Your task to perform on an android device: Is it going to rain this weekend? Image 0: 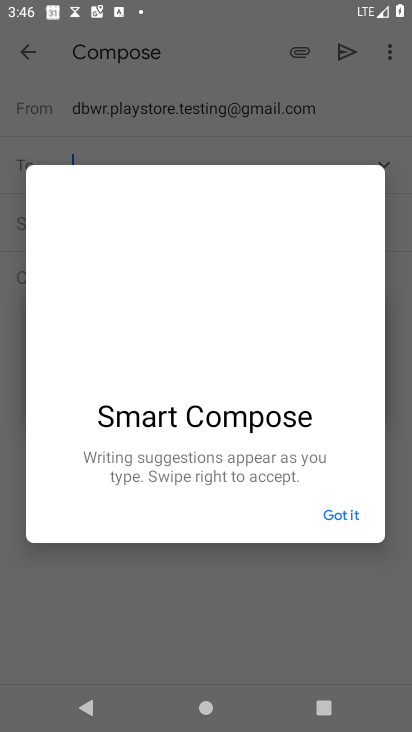
Step 0: press home button
Your task to perform on an android device: Is it going to rain this weekend? Image 1: 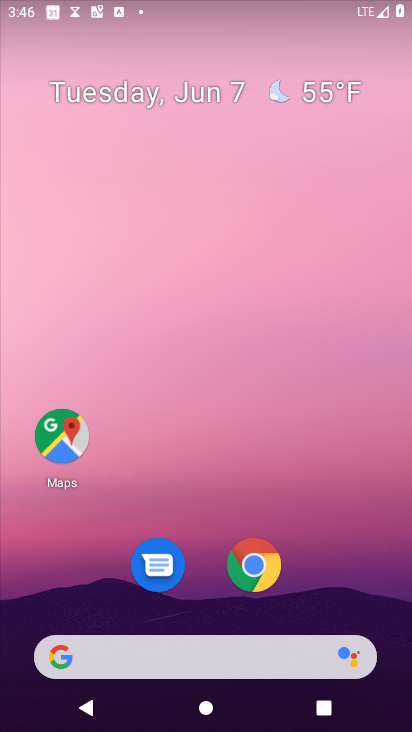
Step 1: drag from (17, 206) to (396, 246)
Your task to perform on an android device: Is it going to rain this weekend? Image 2: 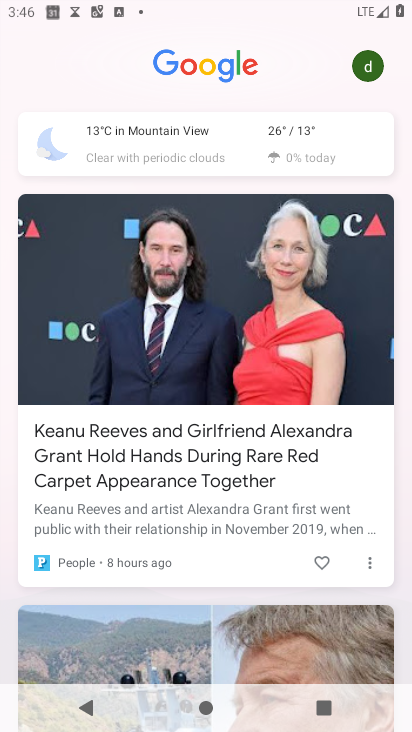
Step 2: click (152, 152)
Your task to perform on an android device: Is it going to rain this weekend? Image 3: 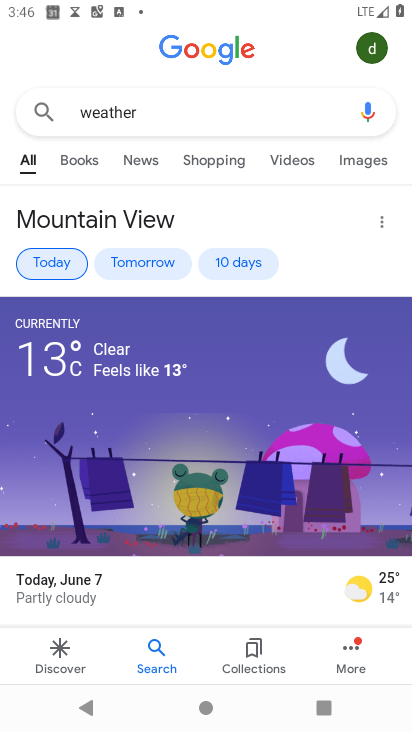
Step 3: click (237, 261)
Your task to perform on an android device: Is it going to rain this weekend? Image 4: 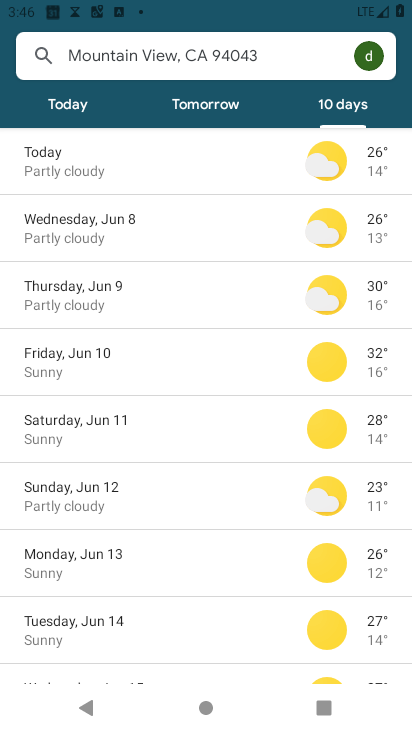
Step 4: task complete